Your task to perform on an android device: uninstall "Google Docs" Image 0: 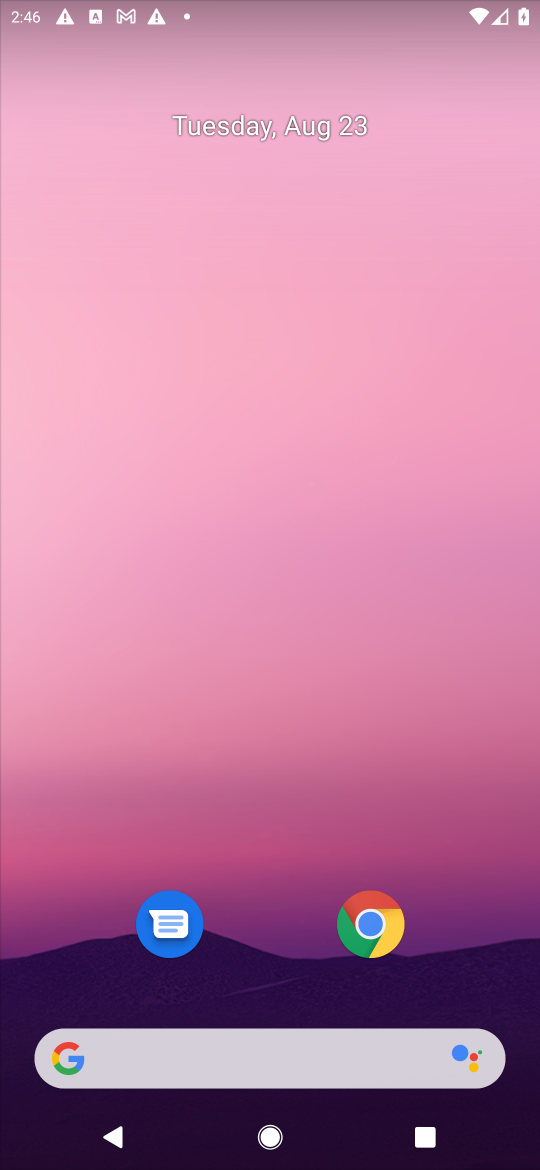
Step 0: press home button
Your task to perform on an android device: uninstall "Google Docs" Image 1: 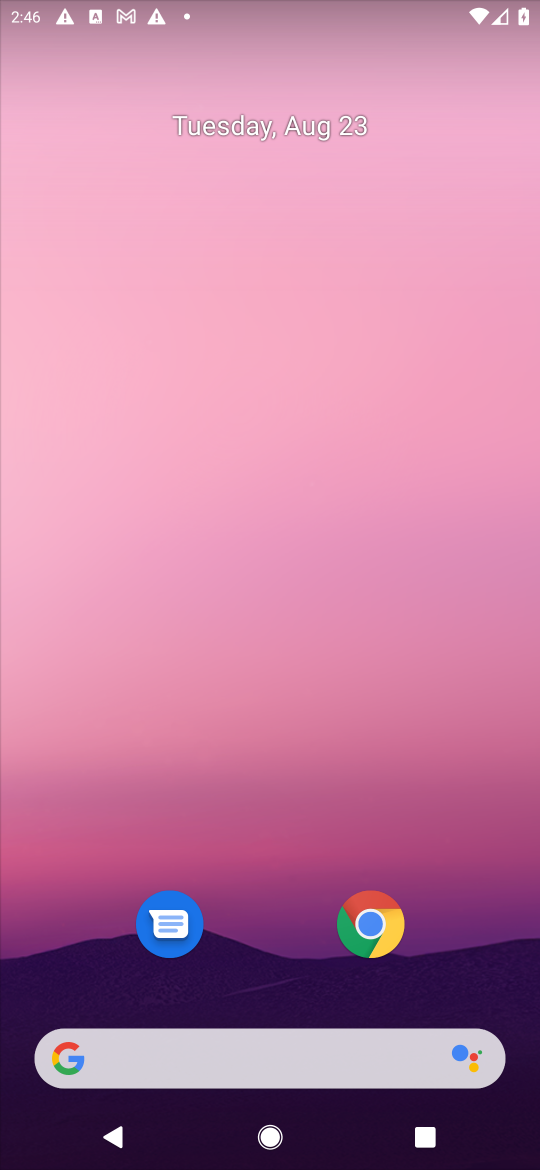
Step 1: drag from (480, 937) to (429, 154)
Your task to perform on an android device: uninstall "Google Docs" Image 2: 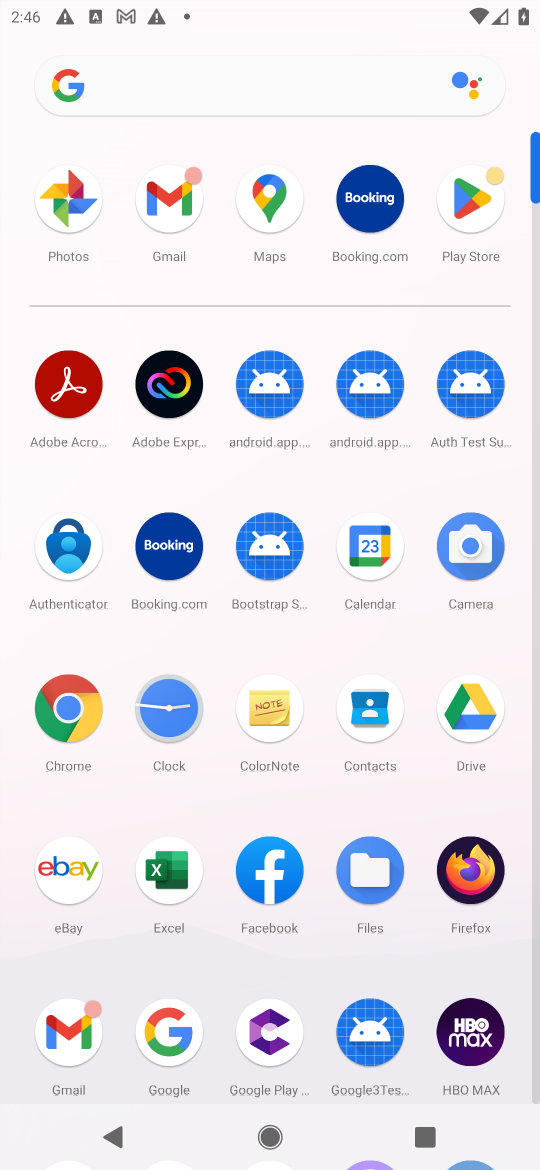
Step 2: click (476, 196)
Your task to perform on an android device: uninstall "Google Docs" Image 3: 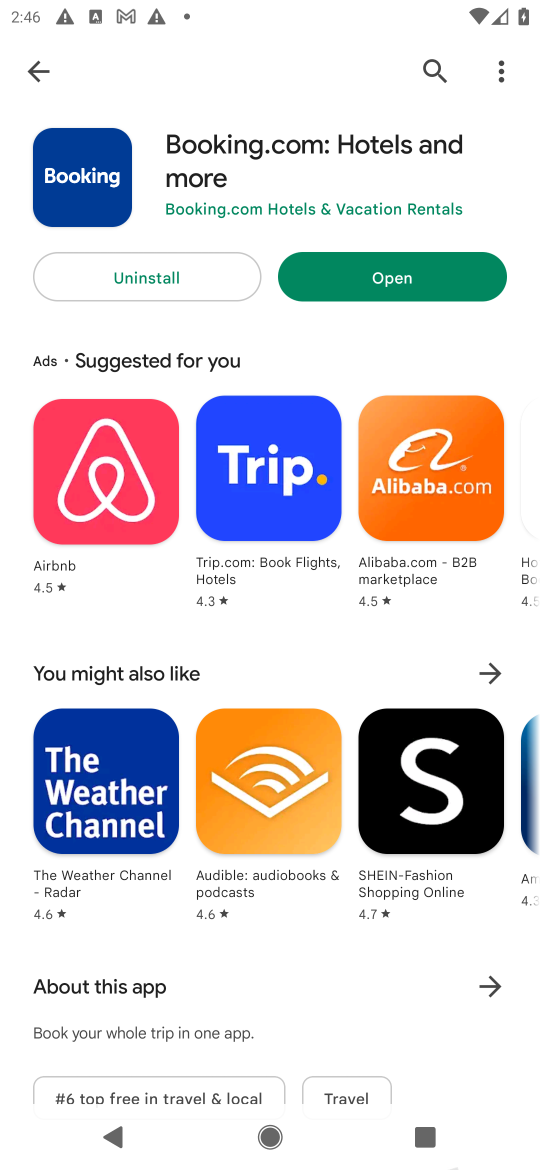
Step 3: press back button
Your task to perform on an android device: uninstall "Google Docs" Image 4: 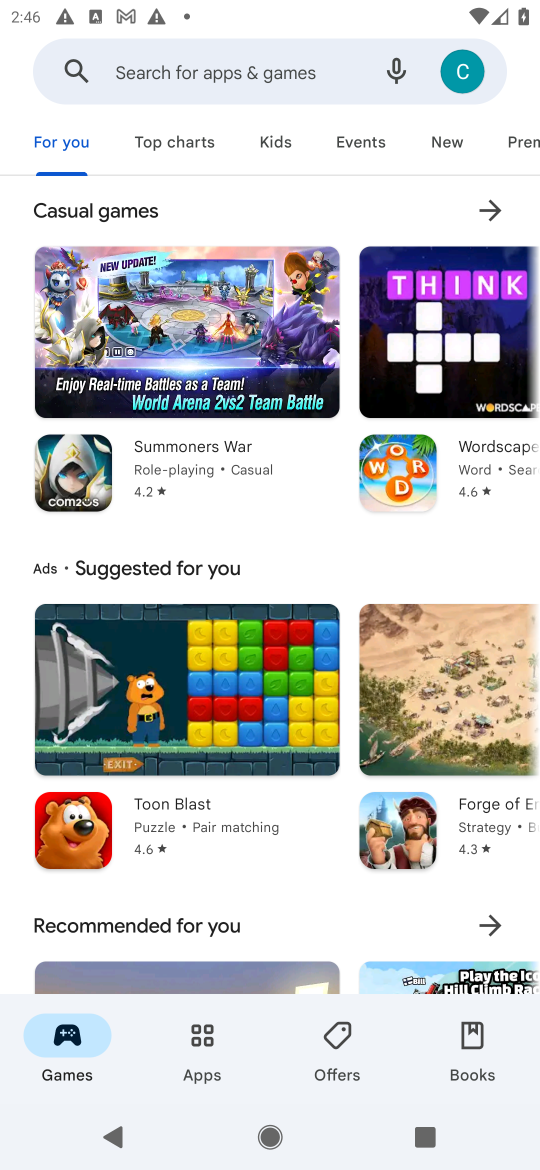
Step 4: click (282, 70)
Your task to perform on an android device: uninstall "Google Docs" Image 5: 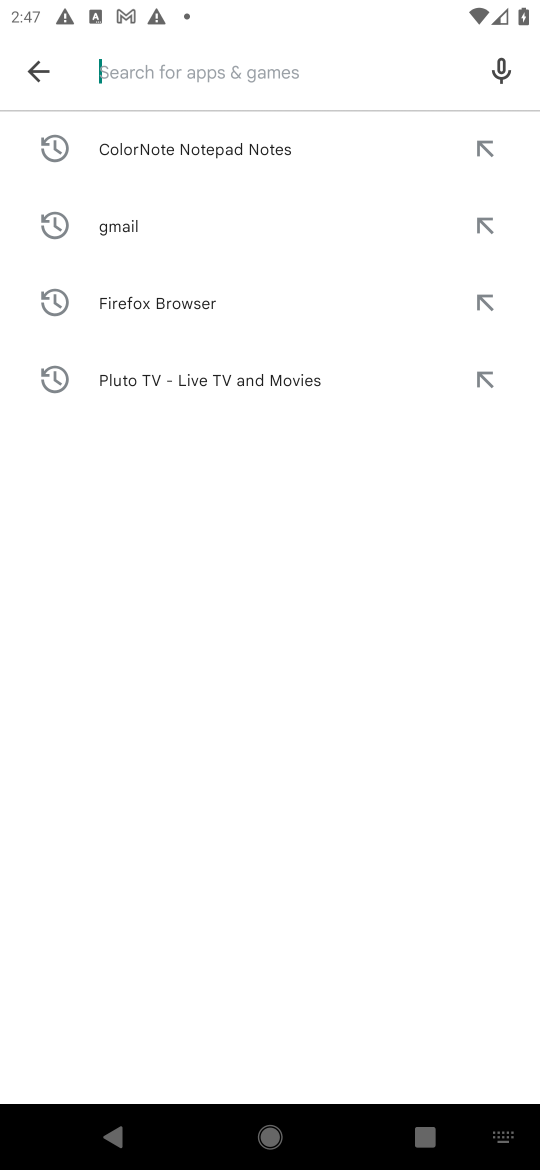
Step 5: type "Google Docs"
Your task to perform on an android device: uninstall "Google Docs" Image 6: 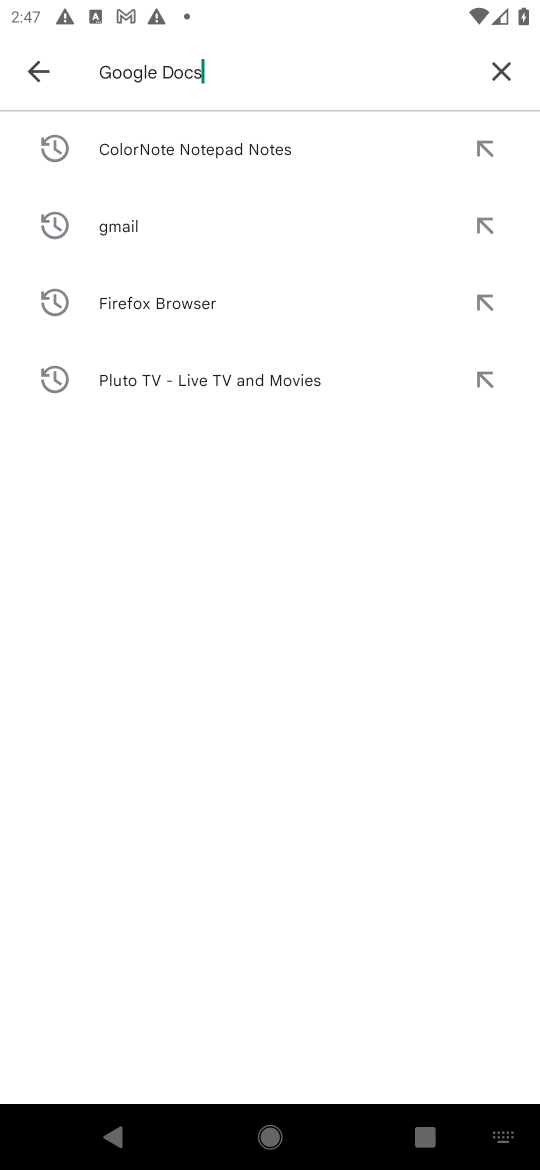
Step 6: press enter
Your task to perform on an android device: uninstall "Google Docs" Image 7: 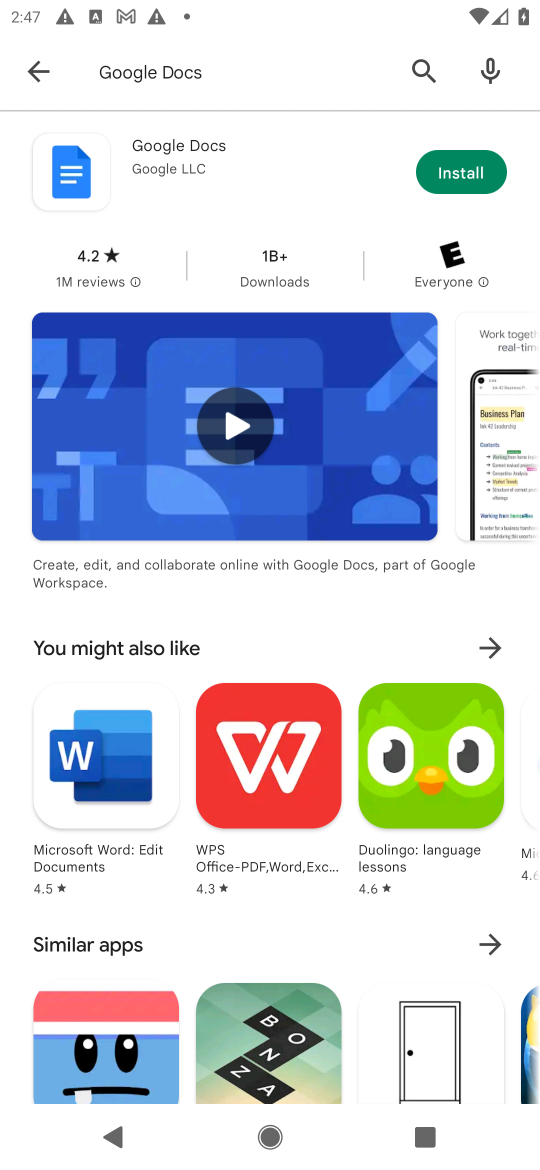
Step 7: task complete